Your task to perform on an android device: When is my next appointment? Image 0: 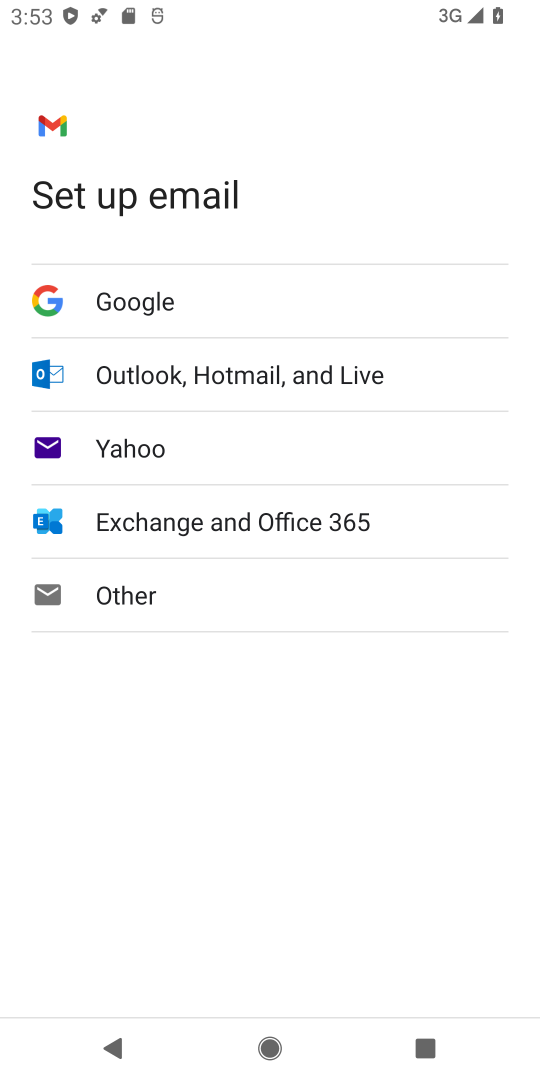
Step 0: press home button
Your task to perform on an android device: When is my next appointment? Image 1: 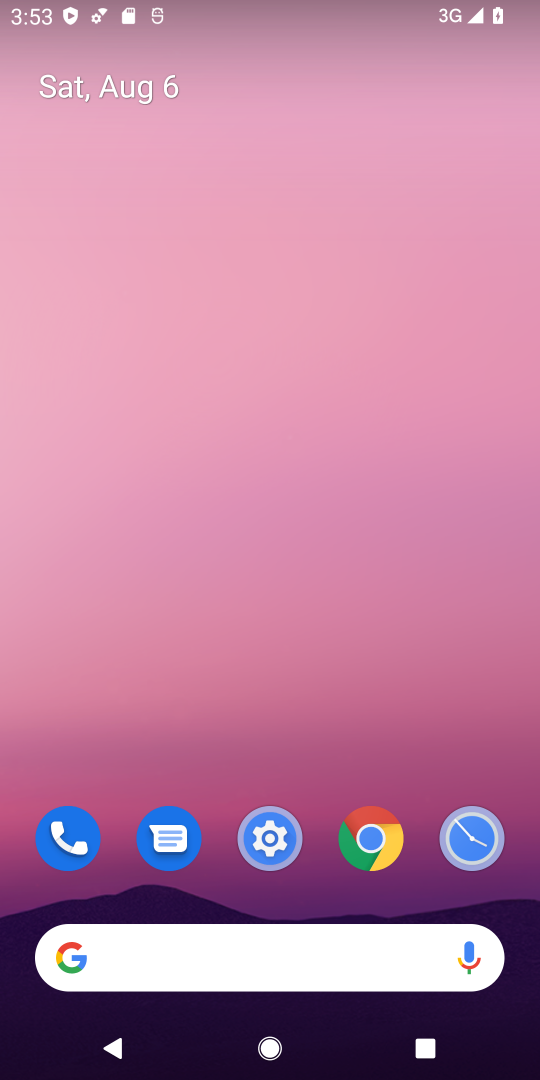
Step 1: drag from (272, 933) to (230, 255)
Your task to perform on an android device: When is my next appointment? Image 2: 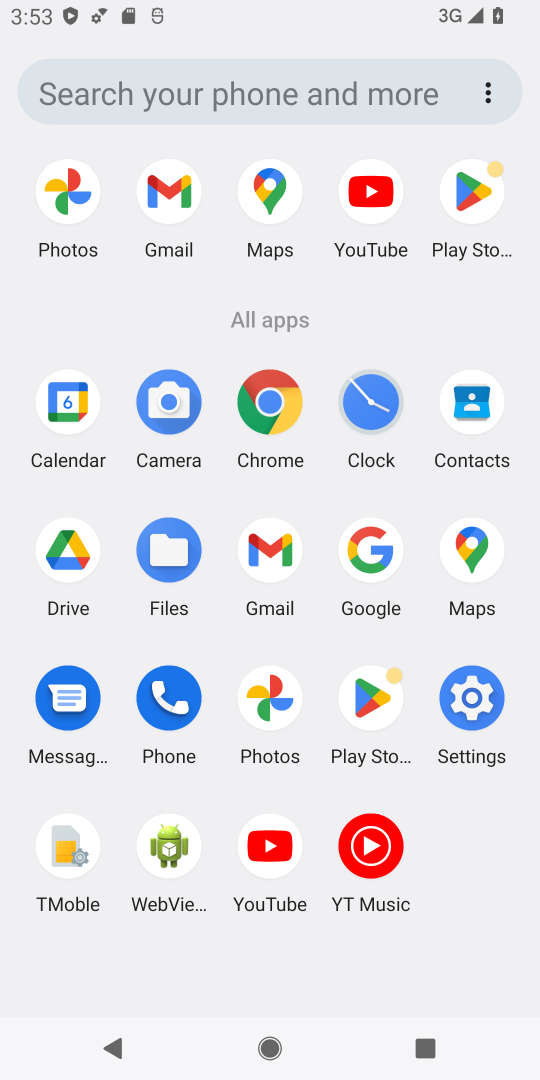
Step 2: click (60, 414)
Your task to perform on an android device: When is my next appointment? Image 3: 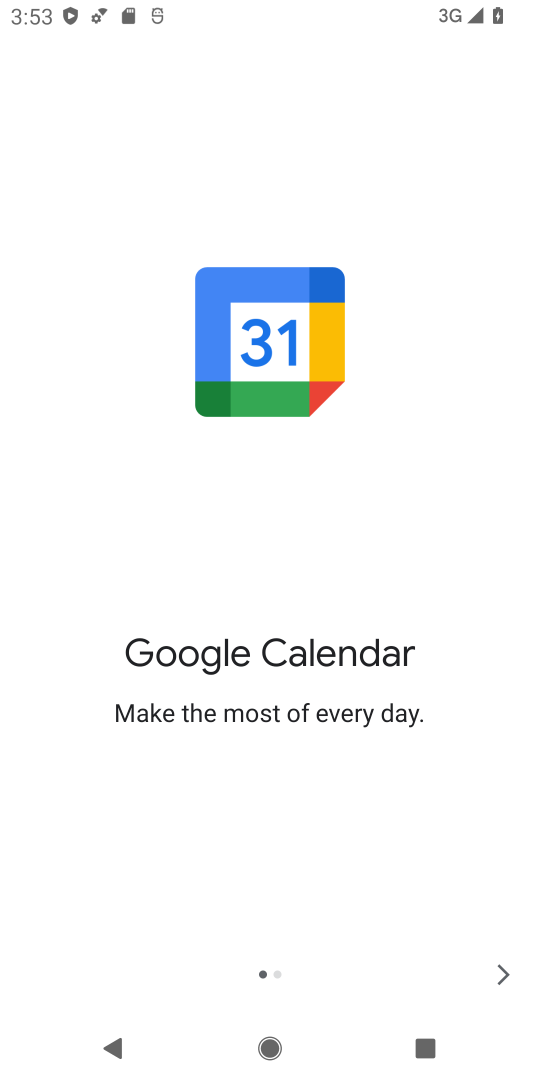
Step 3: click (500, 977)
Your task to perform on an android device: When is my next appointment? Image 4: 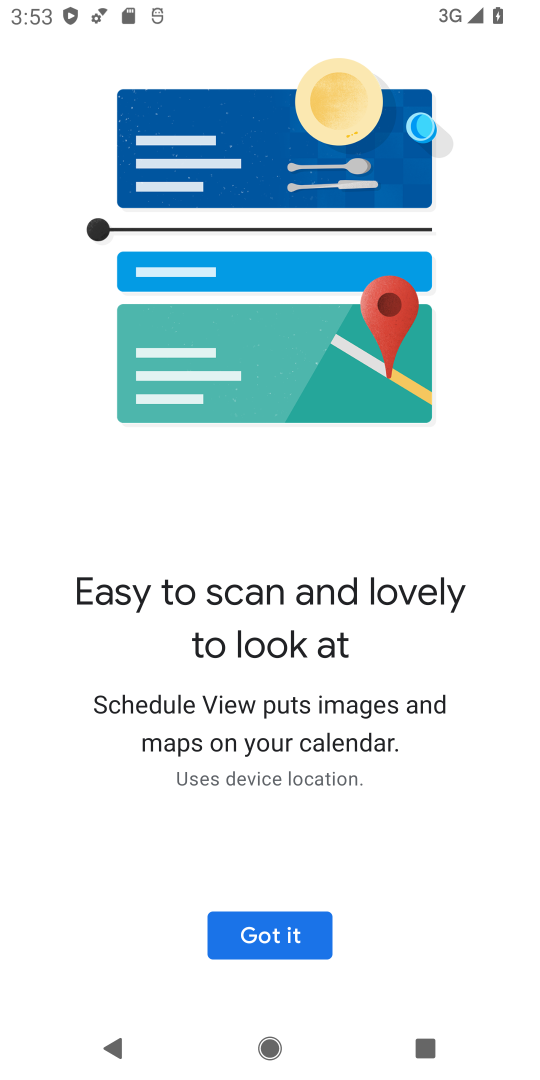
Step 4: click (267, 941)
Your task to perform on an android device: When is my next appointment? Image 5: 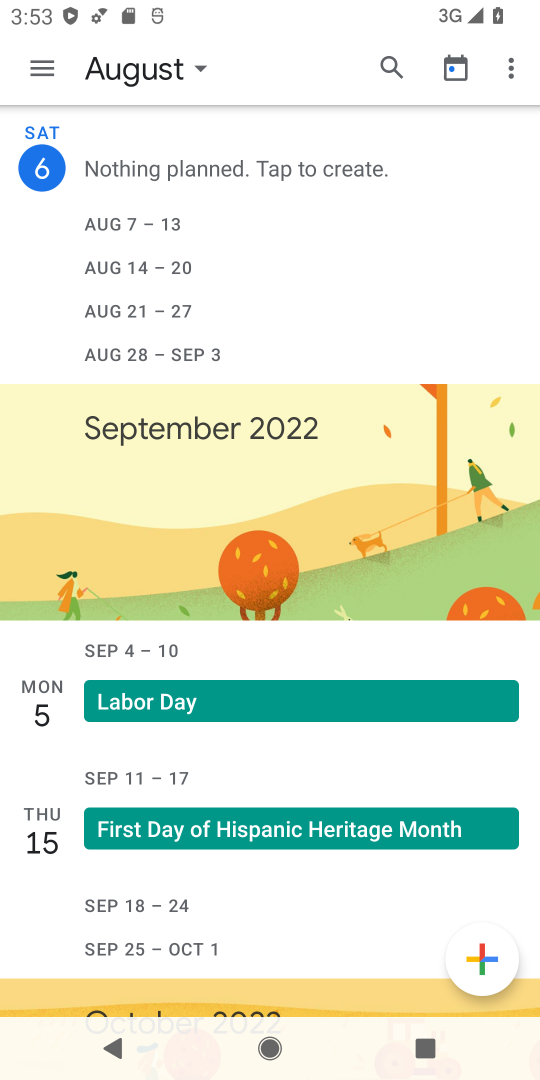
Step 5: click (199, 66)
Your task to perform on an android device: When is my next appointment? Image 6: 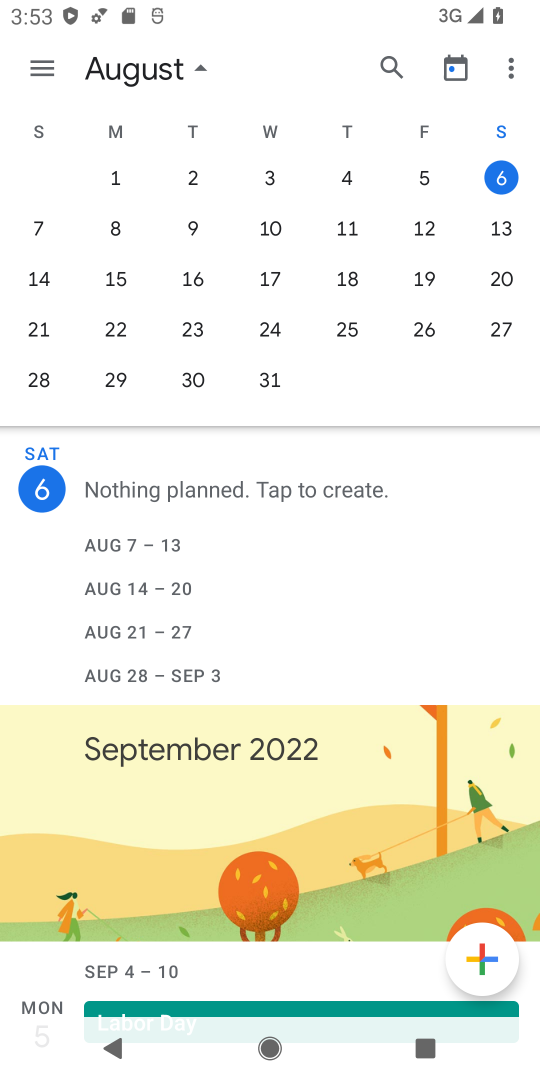
Step 6: click (43, 223)
Your task to perform on an android device: When is my next appointment? Image 7: 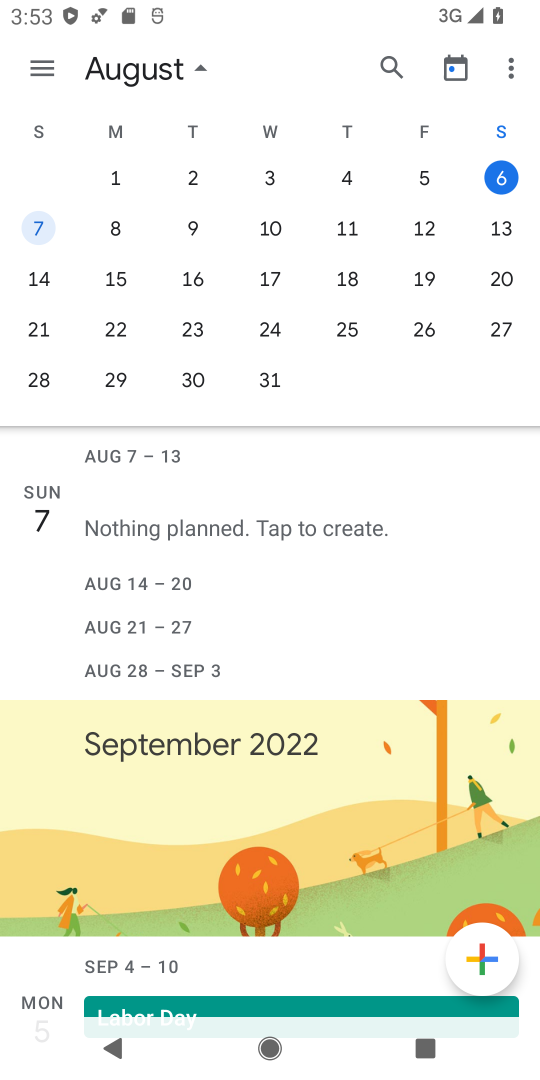
Step 7: task complete